Your task to perform on an android device: Go to Reddit.com Image 0: 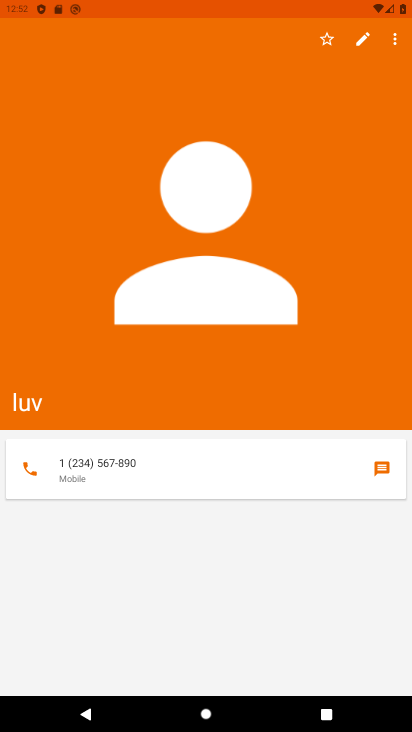
Step 0: press home button
Your task to perform on an android device: Go to Reddit.com Image 1: 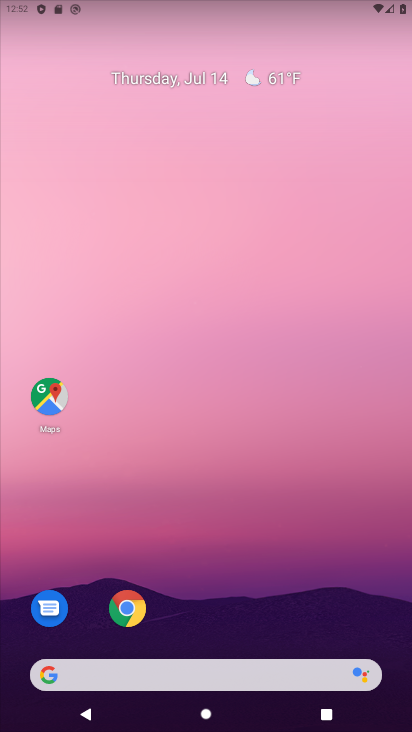
Step 1: drag from (353, 592) to (365, 143)
Your task to perform on an android device: Go to Reddit.com Image 2: 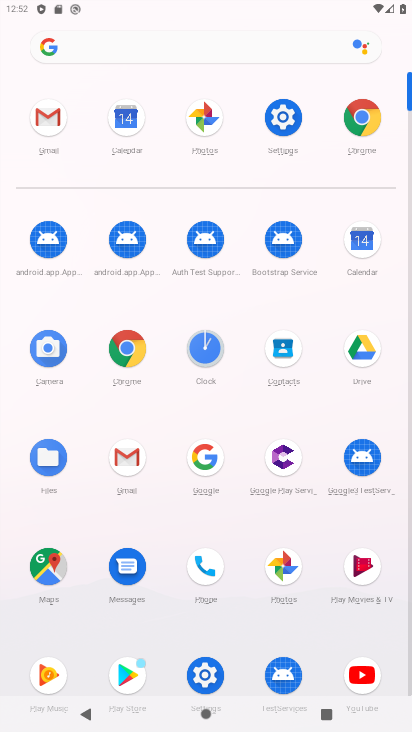
Step 2: click (367, 124)
Your task to perform on an android device: Go to Reddit.com Image 3: 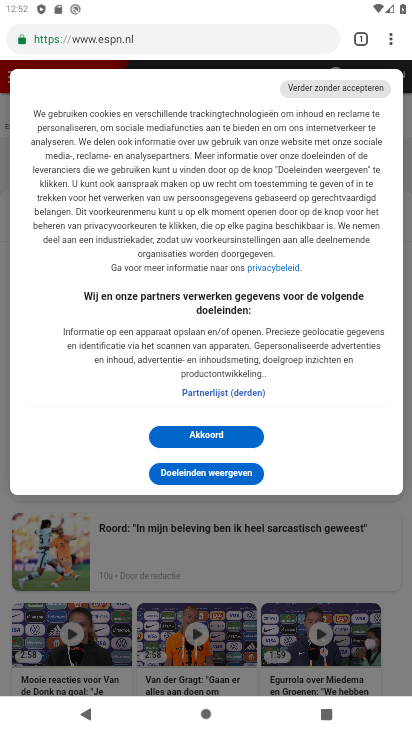
Step 3: click (258, 36)
Your task to perform on an android device: Go to Reddit.com Image 4: 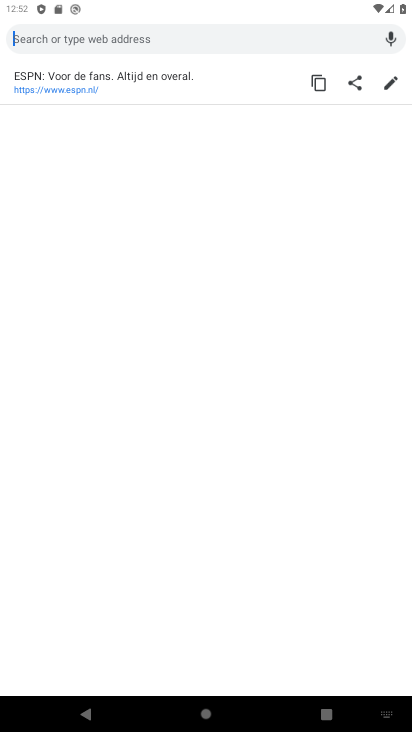
Step 4: type "reddit.com"
Your task to perform on an android device: Go to Reddit.com Image 5: 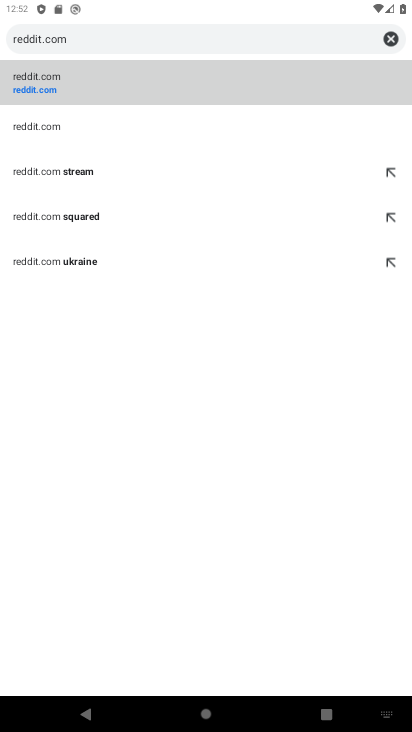
Step 5: click (144, 86)
Your task to perform on an android device: Go to Reddit.com Image 6: 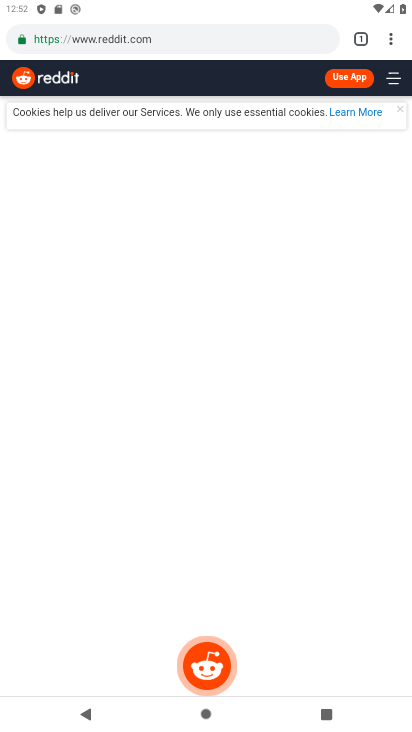
Step 6: task complete